Your task to perform on an android device: Open Google Maps Image 0: 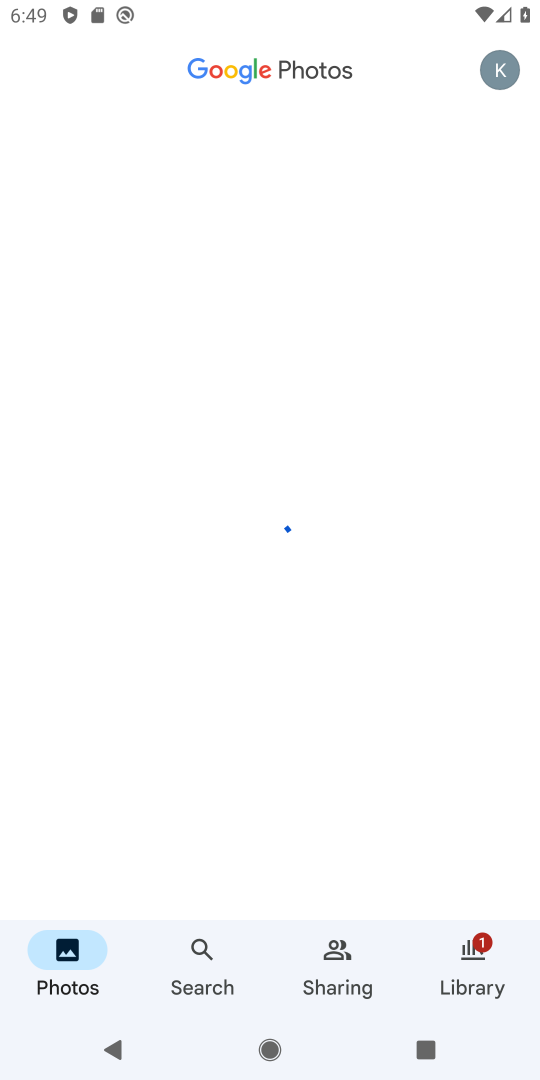
Step 0: press home button
Your task to perform on an android device: Open Google Maps Image 1: 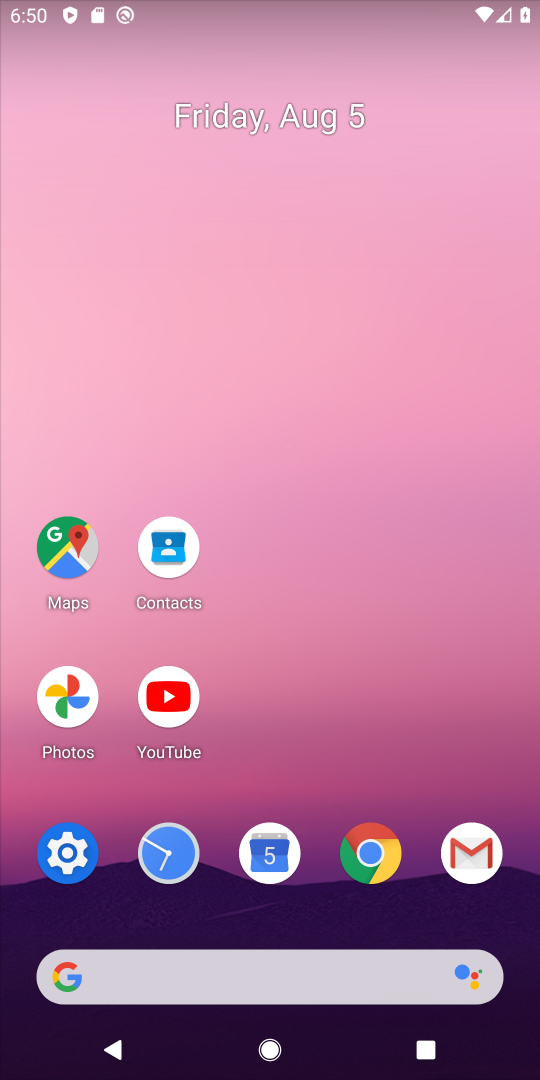
Step 1: click (60, 551)
Your task to perform on an android device: Open Google Maps Image 2: 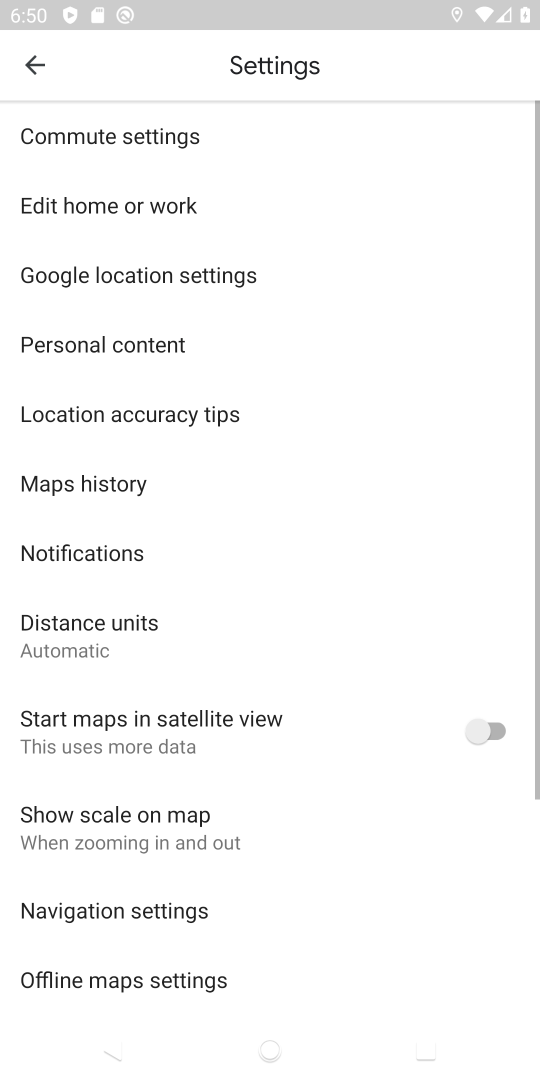
Step 2: click (27, 58)
Your task to perform on an android device: Open Google Maps Image 3: 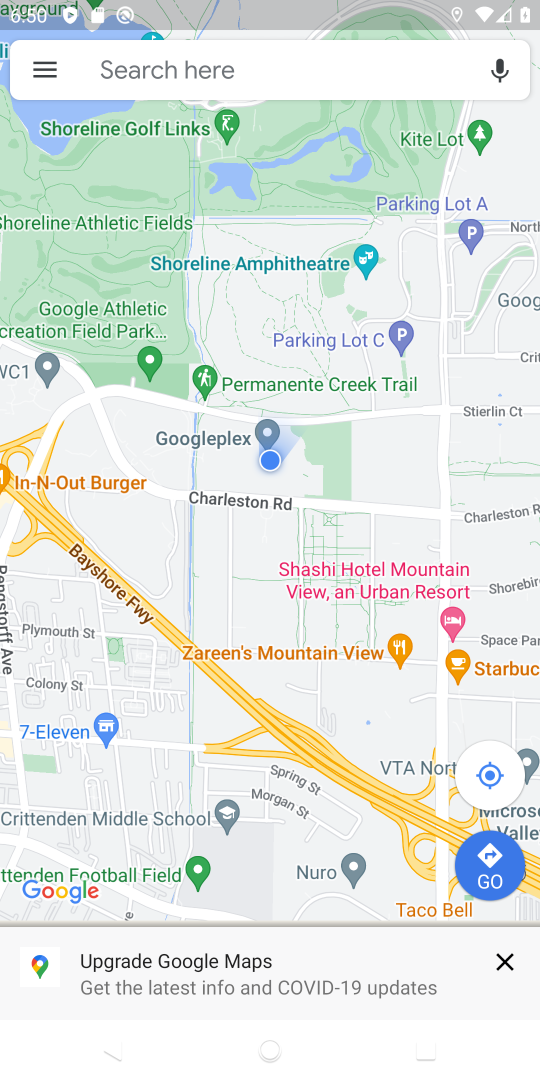
Step 3: task complete